Your task to perform on an android device: Go to sound settings Image 0: 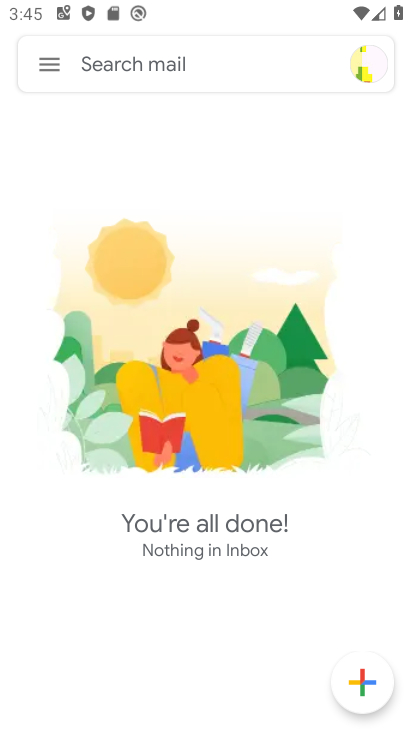
Step 0: press back button
Your task to perform on an android device: Go to sound settings Image 1: 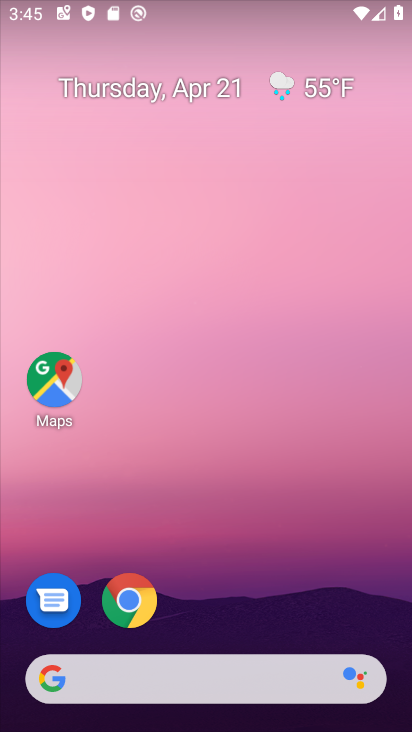
Step 1: drag from (199, 635) to (281, 188)
Your task to perform on an android device: Go to sound settings Image 2: 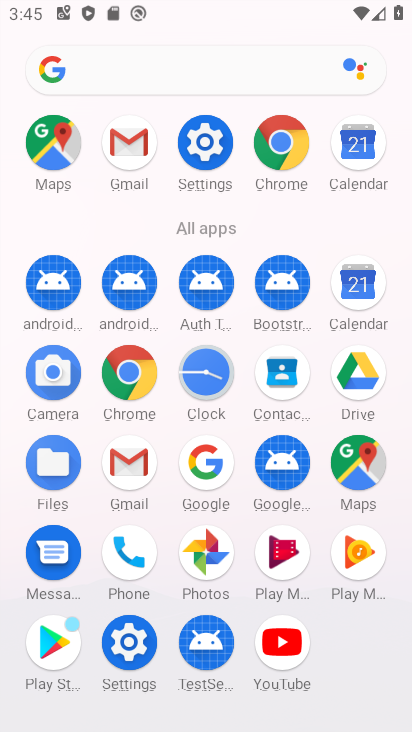
Step 2: click (133, 655)
Your task to perform on an android device: Go to sound settings Image 3: 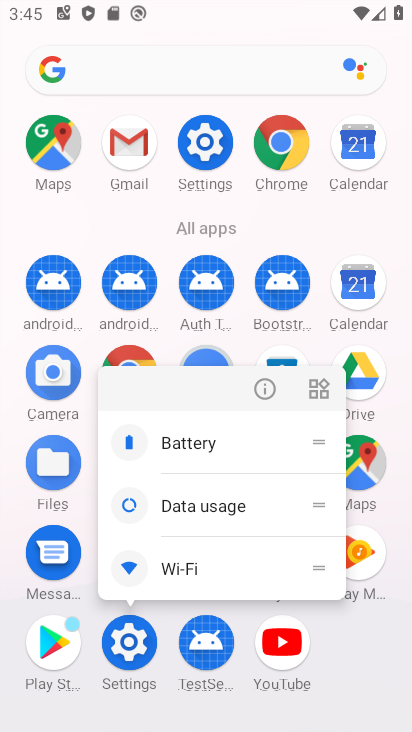
Step 3: click (135, 641)
Your task to perform on an android device: Go to sound settings Image 4: 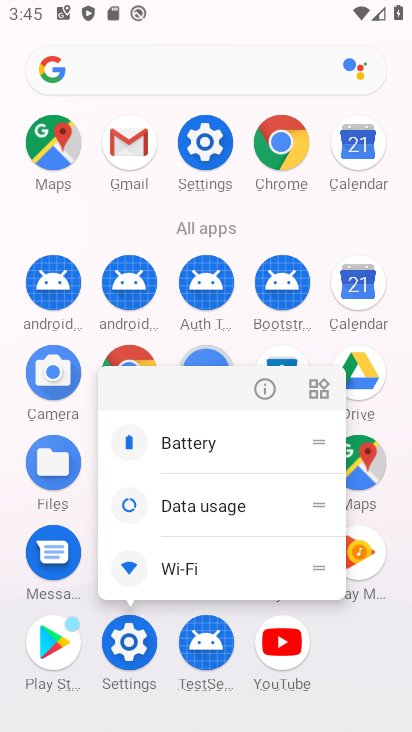
Step 4: click (128, 641)
Your task to perform on an android device: Go to sound settings Image 5: 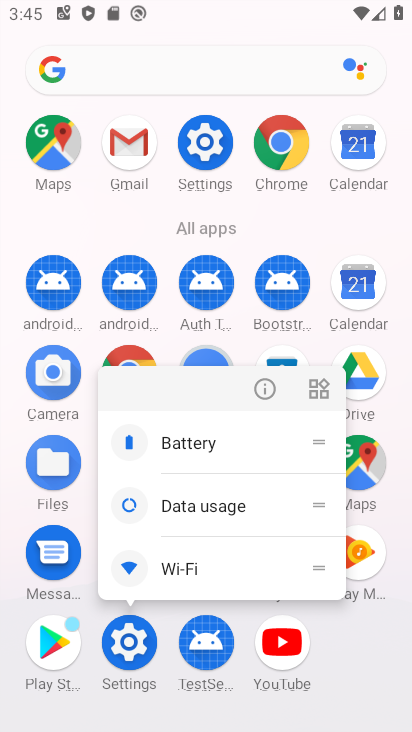
Step 5: click (129, 650)
Your task to perform on an android device: Go to sound settings Image 6: 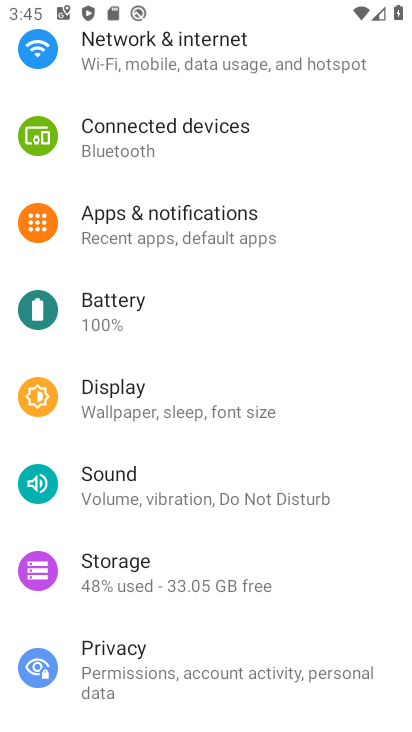
Step 6: click (153, 502)
Your task to perform on an android device: Go to sound settings Image 7: 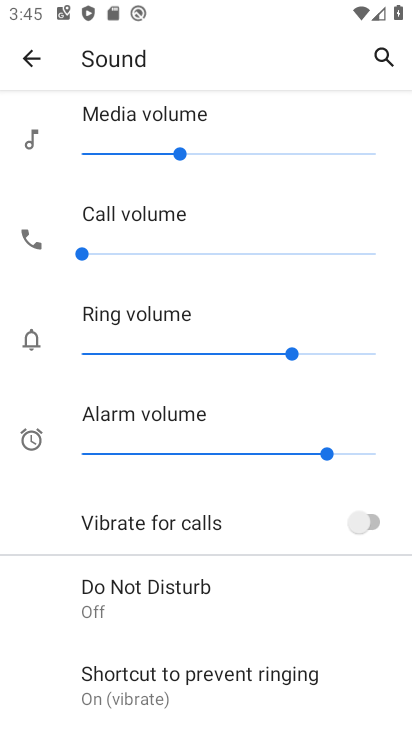
Step 7: task complete